Your task to perform on an android device: turn on showing notifications on the lock screen Image 0: 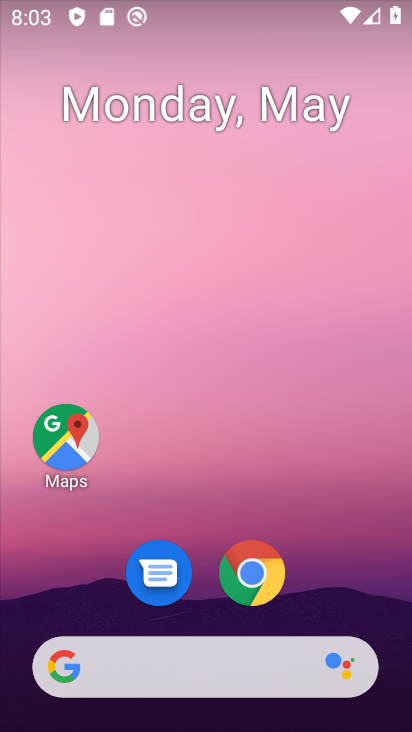
Step 0: drag from (63, 631) to (239, 202)
Your task to perform on an android device: turn on showing notifications on the lock screen Image 1: 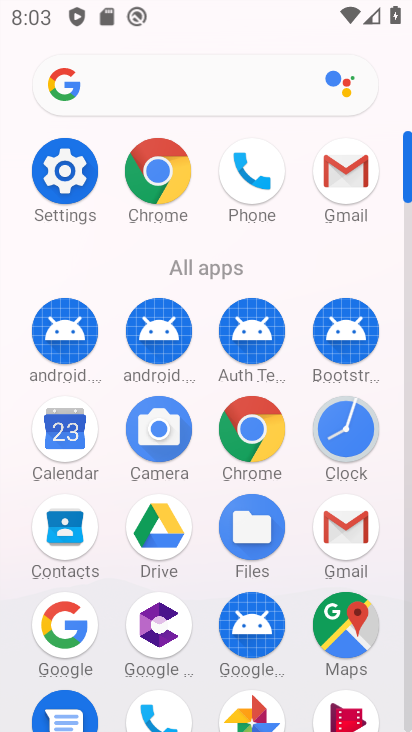
Step 1: drag from (180, 675) to (228, 381)
Your task to perform on an android device: turn on showing notifications on the lock screen Image 2: 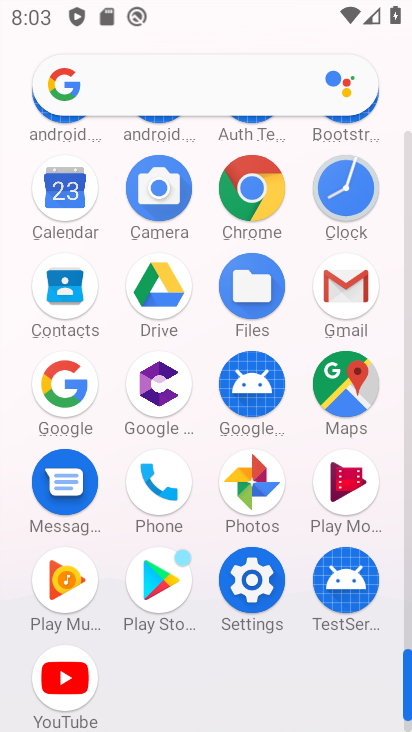
Step 2: click (256, 597)
Your task to perform on an android device: turn on showing notifications on the lock screen Image 3: 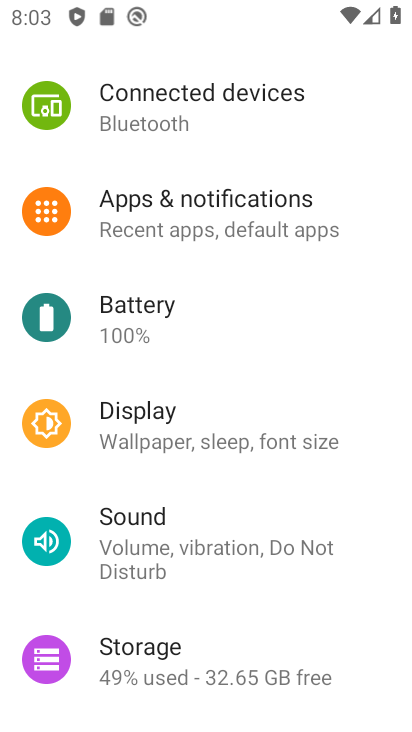
Step 3: click (228, 225)
Your task to perform on an android device: turn on showing notifications on the lock screen Image 4: 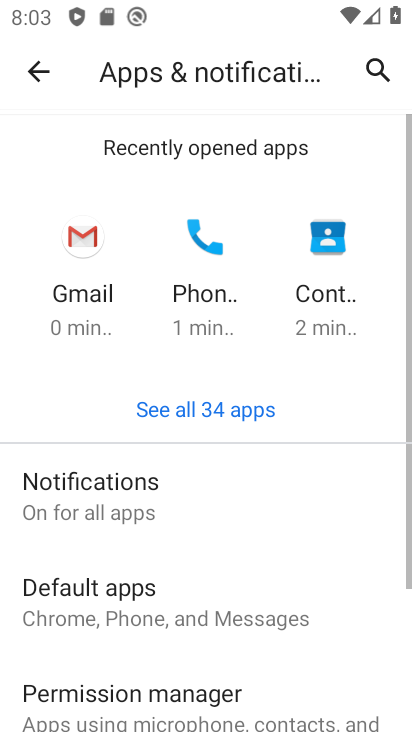
Step 4: drag from (215, 650) to (258, 271)
Your task to perform on an android device: turn on showing notifications on the lock screen Image 5: 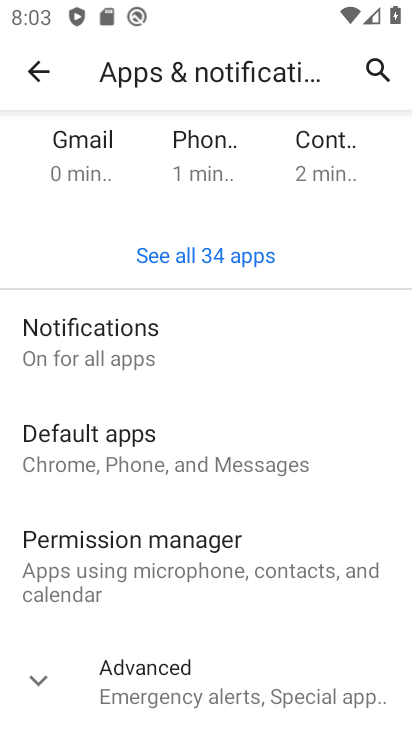
Step 5: click (154, 354)
Your task to perform on an android device: turn on showing notifications on the lock screen Image 6: 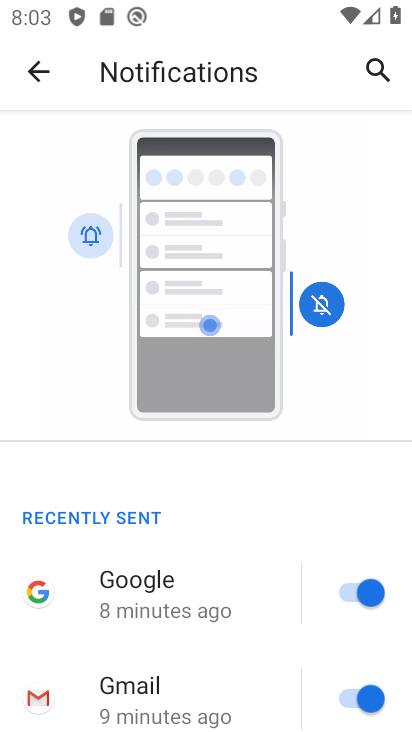
Step 6: drag from (221, 675) to (329, 163)
Your task to perform on an android device: turn on showing notifications on the lock screen Image 7: 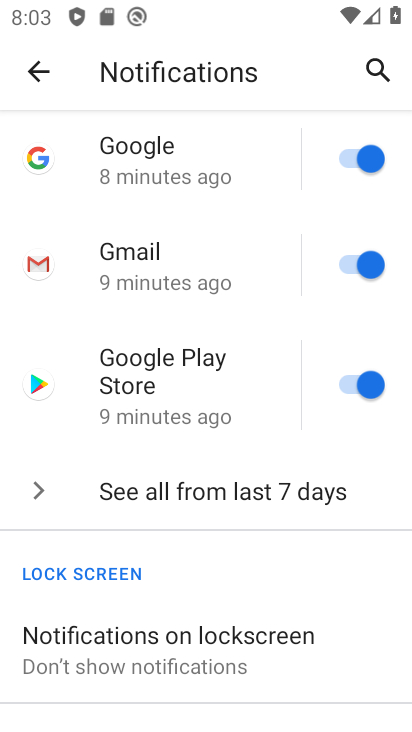
Step 7: click (276, 661)
Your task to perform on an android device: turn on showing notifications on the lock screen Image 8: 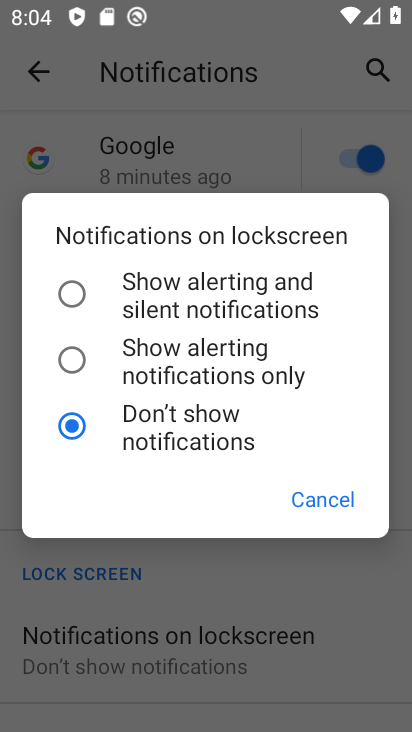
Step 8: click (223, 313)
Your task to perform on an android device: turn on showing notifications on the lock screen Image 9: 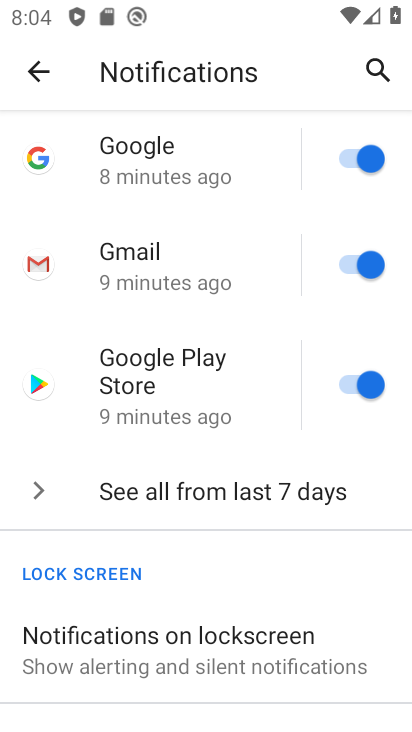
Step 9: task complete